Your task to perform on an android device: turn on notifications settings in the gmail app Image 0: 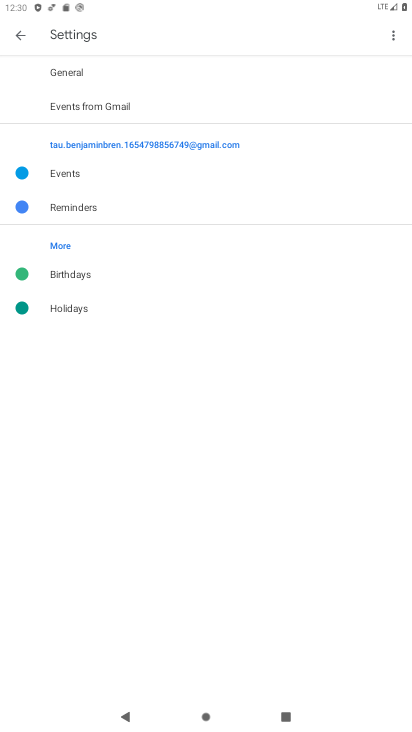
Step 0: press home button
Your task to perform on an android device: turn on notifications settings in the gmail app Image 1: 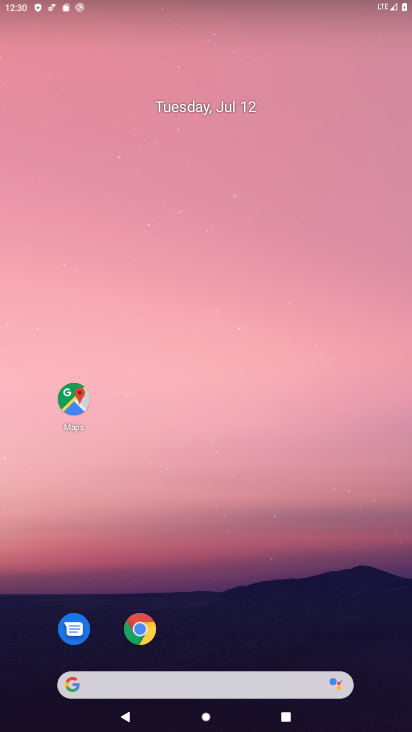
Step 1: drag from (322, 703) to (345, 4)
Your task to perform on an android device: turn on notifications settings in the gmail app Image 2: 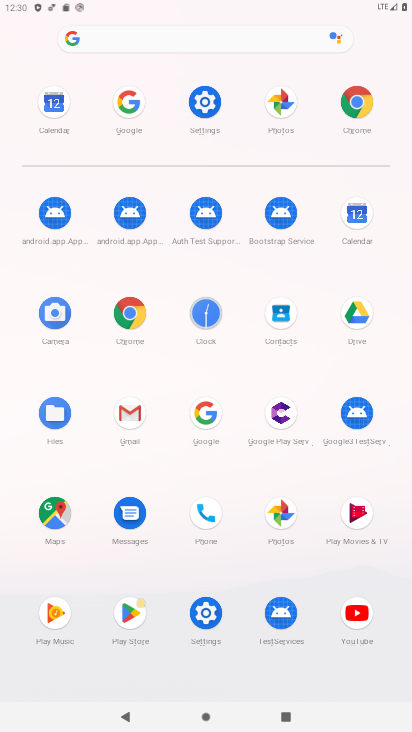
Step 2: click (132, 409)
Your task to perform on an android device: turn on notifications settings in the gmail app Image 3: 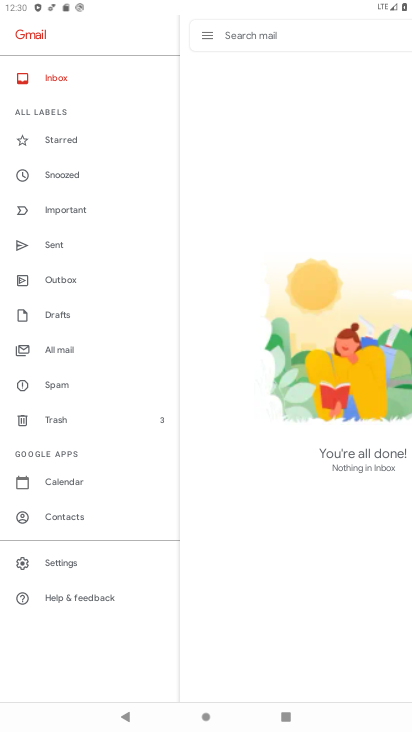
Step 3: click (76, 559)
Your task to perform on an android device: turn on notifications settings in the gmail app Image 4: 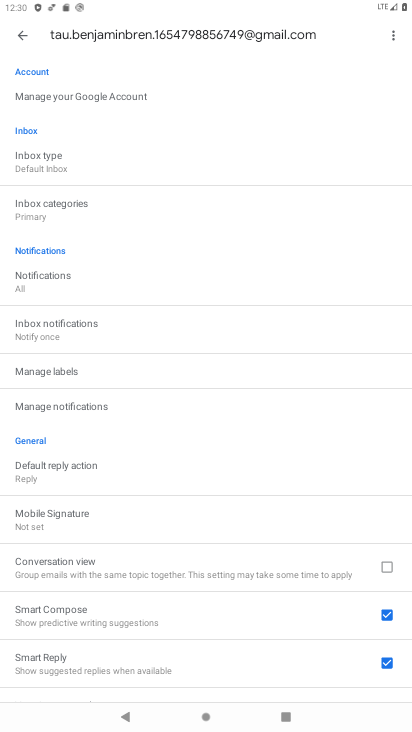
Step 4: click (102, 399)
Your task to perform on an android device: turn on notifications settings in the gmail app Image 5: 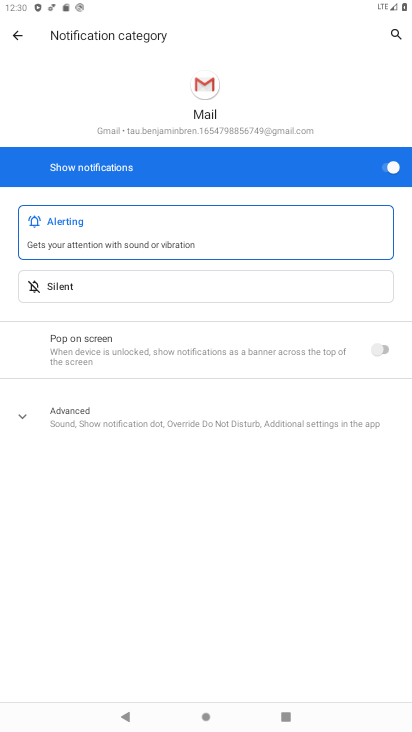
Step 5: task complete